Your task to perform on an android device: Open the clock app Image 0: 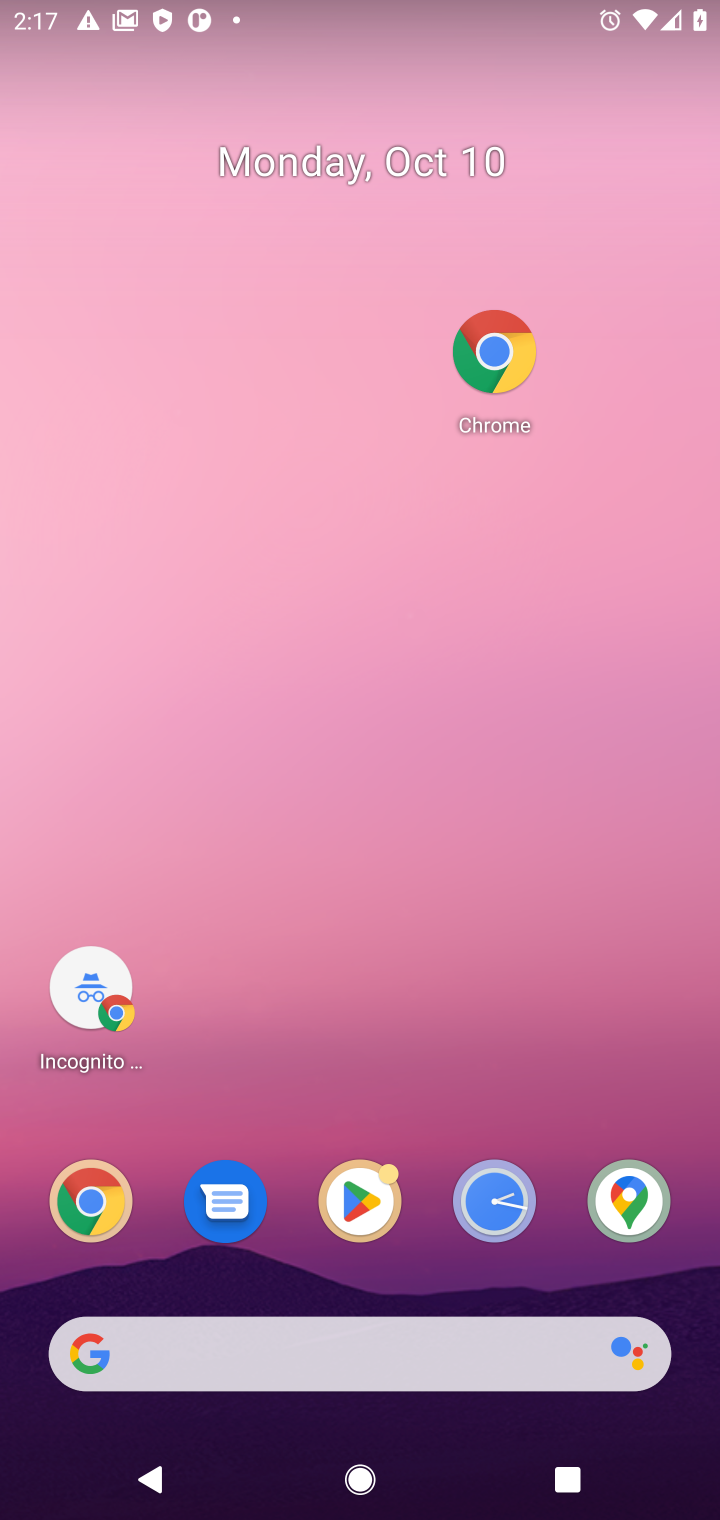
Step 0: click (483, 1205)
Your task to perform on an android device: Open the clock app Image 1: 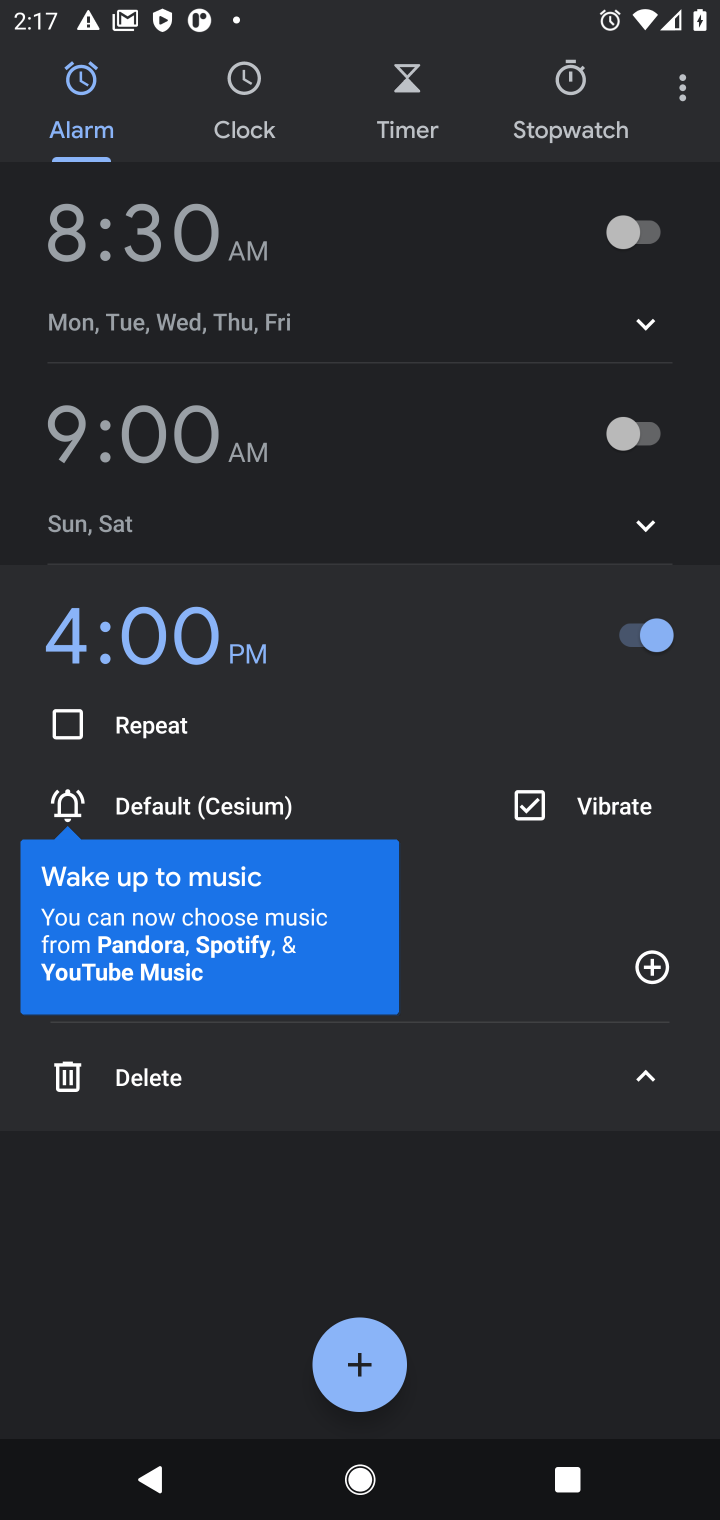
Step 1: task complete